Your task to perform on an android device: Open ESPN.com Image 0: 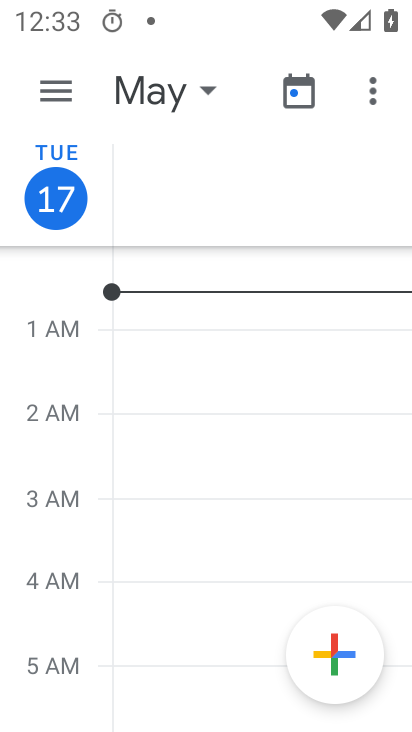
Step 0: press home button
Your task to perform on an android device: Open ESPN.com Image 1: 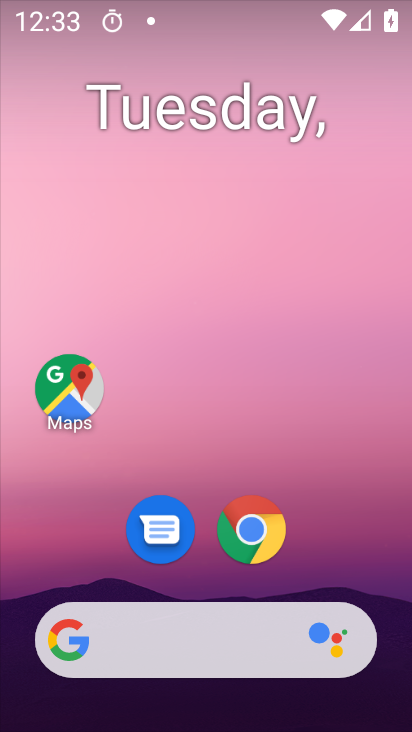
Step 1: drag from (342, 486) to (271, 39)
Your task to perform on an android device: Open ESPN.com Image 2: 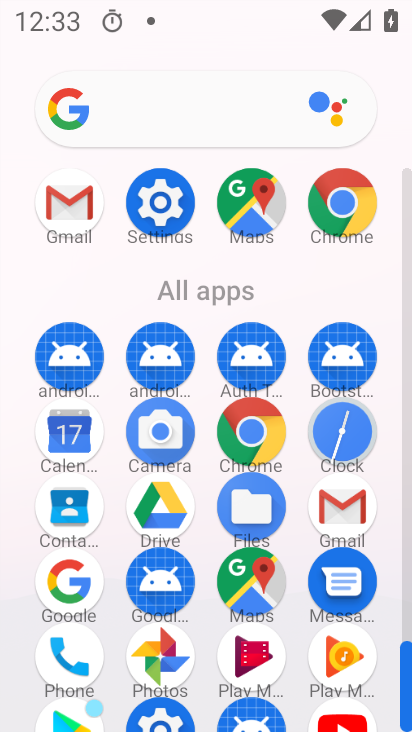
Step 2: click (339, 208)
Your task to perform on an android device: Open ESPN.com Image 3: 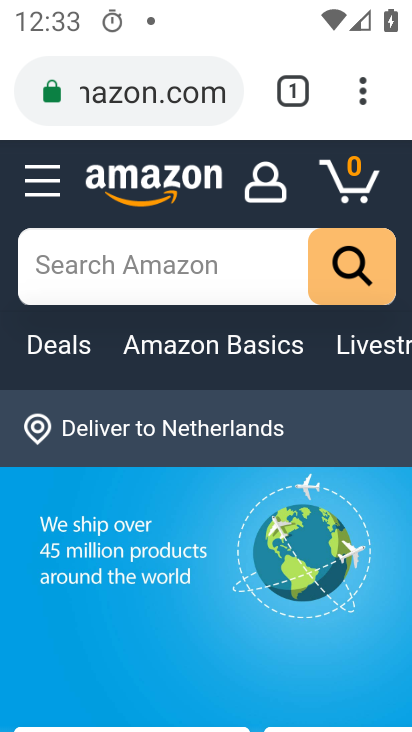
Step 3: click (192, 99)
Your task to perform on an android device: Open ESPN.com Image 4: 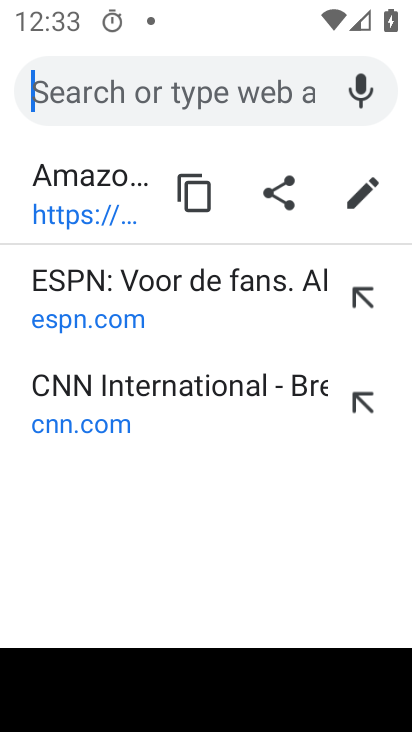
Step 4: click (204, 86)
Your task to perform on an android device: Open ESPN.com Image 5: 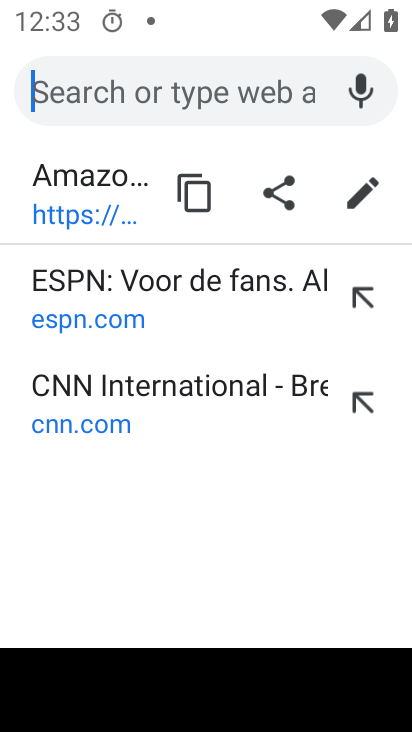
Step 5: type "espn"
Your task to perform on an android device: Open ESPN.com Image 6: 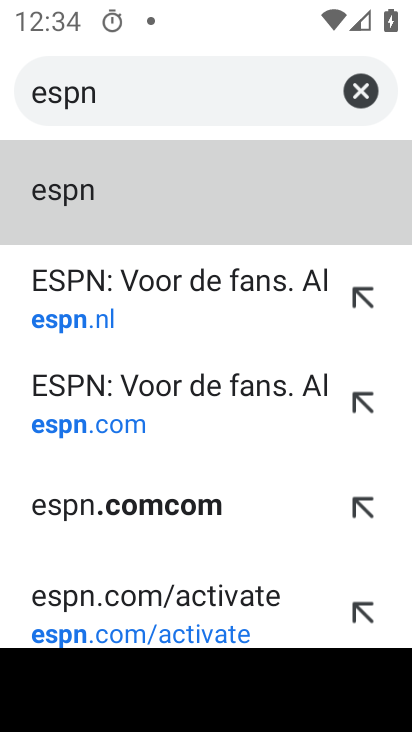
Step 6: click (88, 202)
Your task to perform on an android device: Open ESPN.com Image 7: 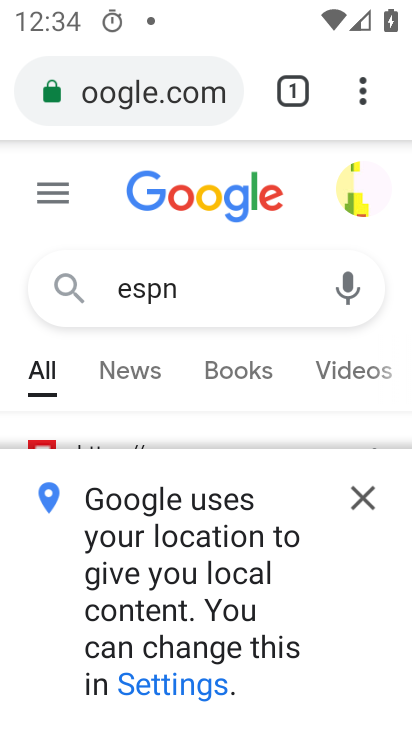
Step 7: click (375, 496)
Your task to perform on an android device: Open ESPN.com Image 8: 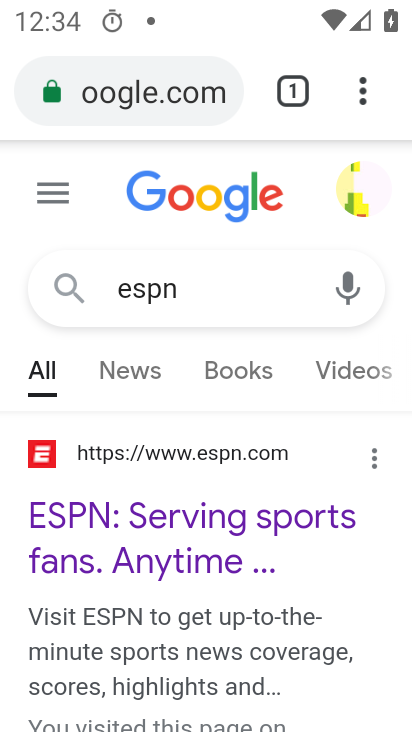
Step 8: click (125, 516)
Your task to perform on an android device: Open ESPN.com Image 9: 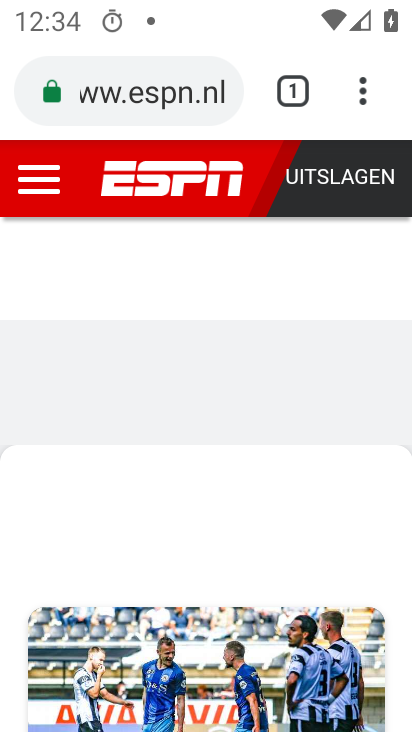
Step 9: task complete